Your task to perform on an android device: clear all cookies in the chrome app Image 0: 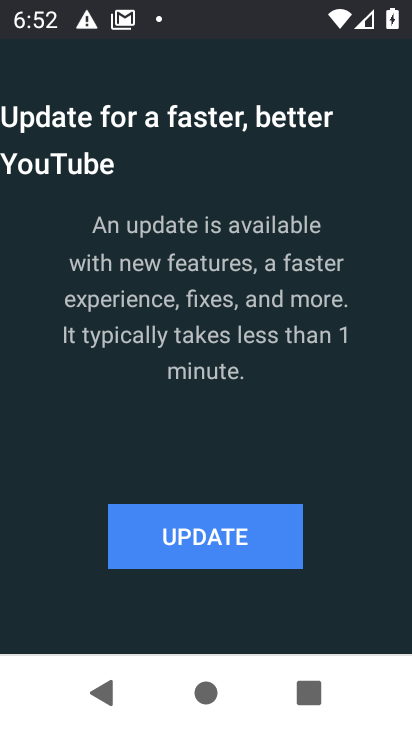
Step 0: task complete